Your task to perform on an android device: turn on notifications settings in the gmail app Image 0: 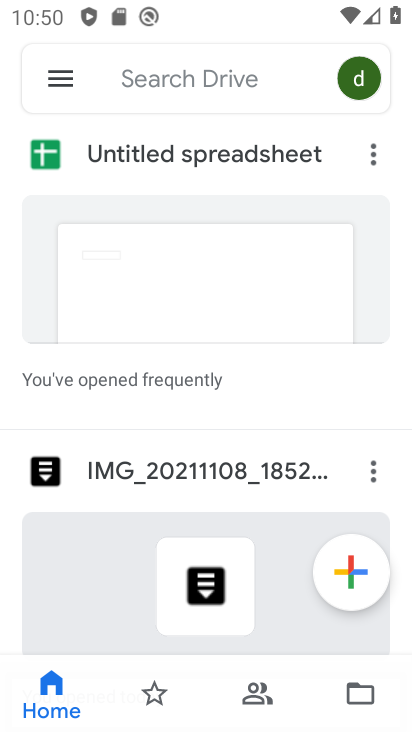
Step 0: press home button
Your task to perform on an android device: turn on notifications settings in the gmail app Image 1: 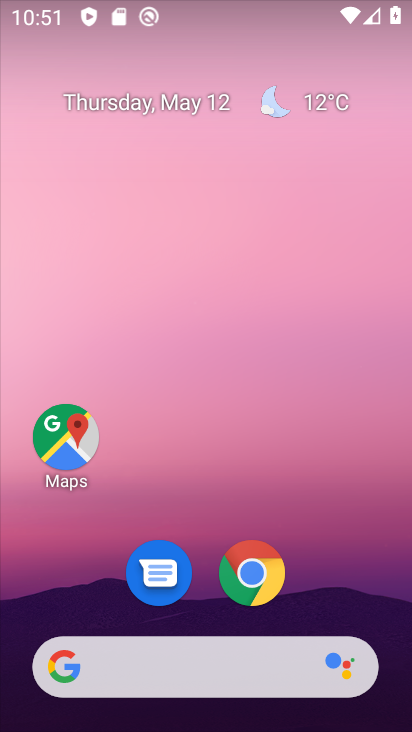
Step 1: drag from (344, 570) to (353, 129)
Your task to perform on an android device: turn on notifications settings in the gmail app Image 2: 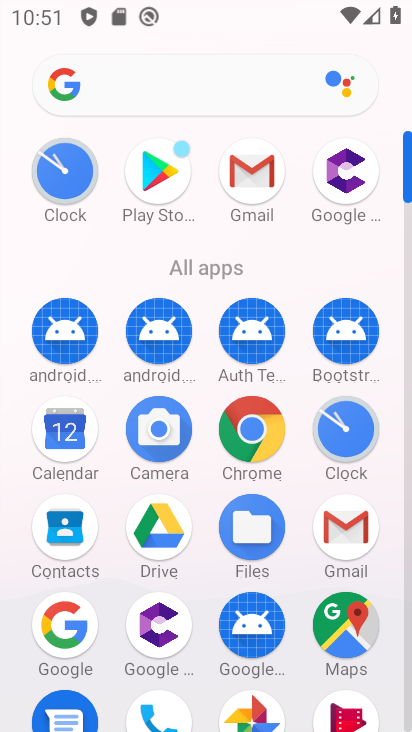
Step 2: click (263, 161)
Your task to perform on an android device: turn on notifications settings in the gmail app Image 3: 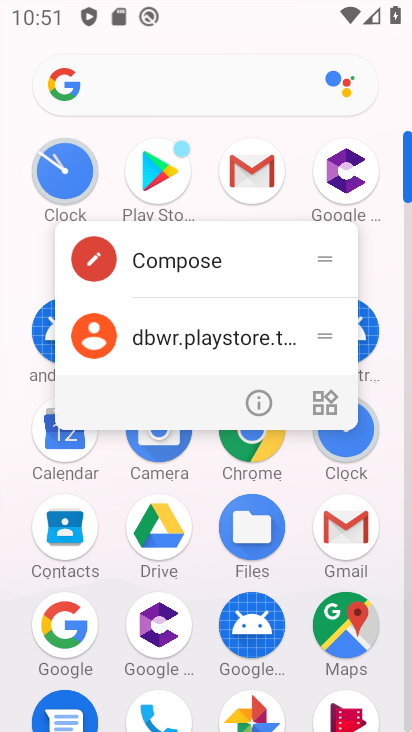
Step 3: click (258, 403)
Your task to perform on an android device: turn on notifications settings in the gmail app Image 4: 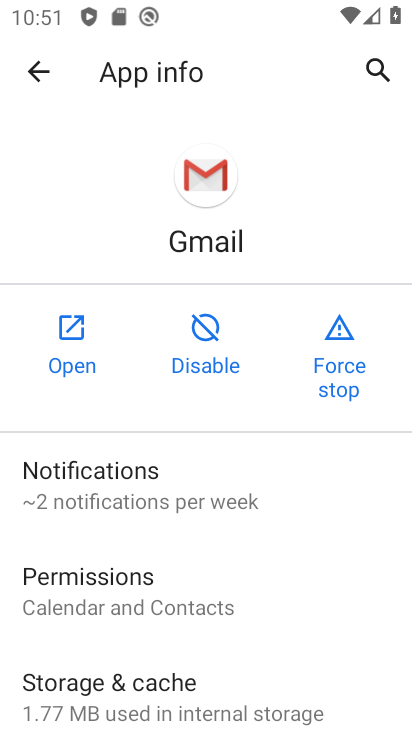
Step 4: drag from (218, 555) to (200, 280)
Your task to perform on an android device: turn on notifications settings in the gmail app Image 5: 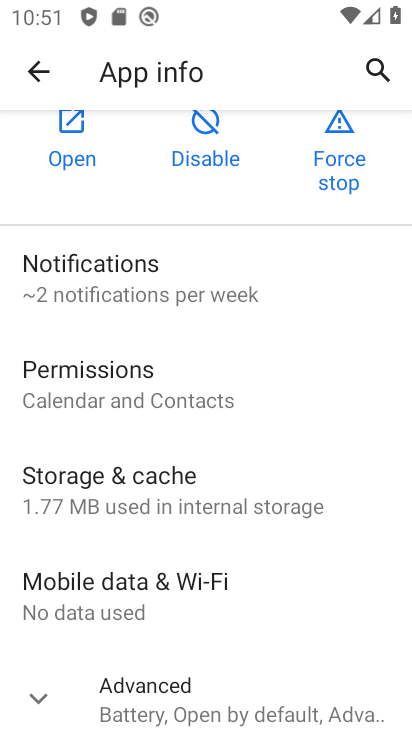
Step 5: drag from (316, 601) to (202, 248)
Your task to perform on an android device: turn on notifications settings in the gmail app Image 6: 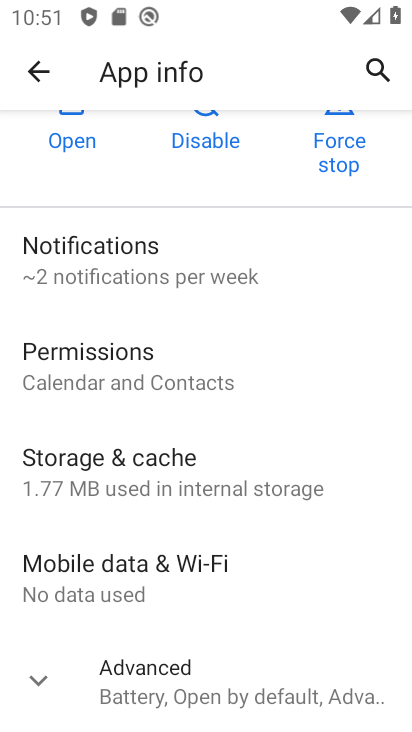
Step 6: click (85, 261)
Your task to perform on an android device: turn on notifications settings in the gmail app Image 7: 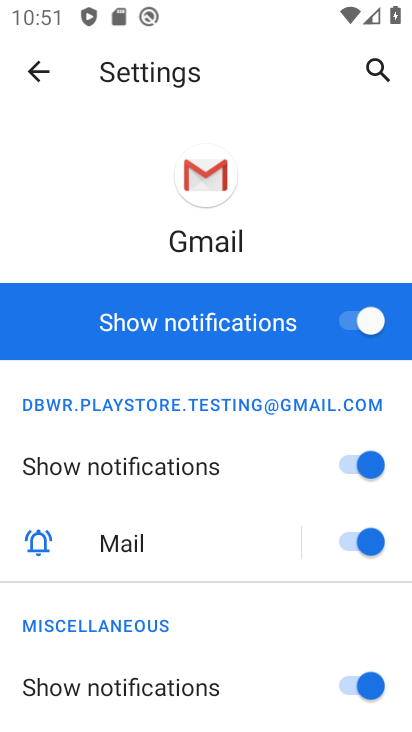
Step 7: click (343, 341)
Your task to perform on an android device: turn on notifications settings in the gmail app Image 8: 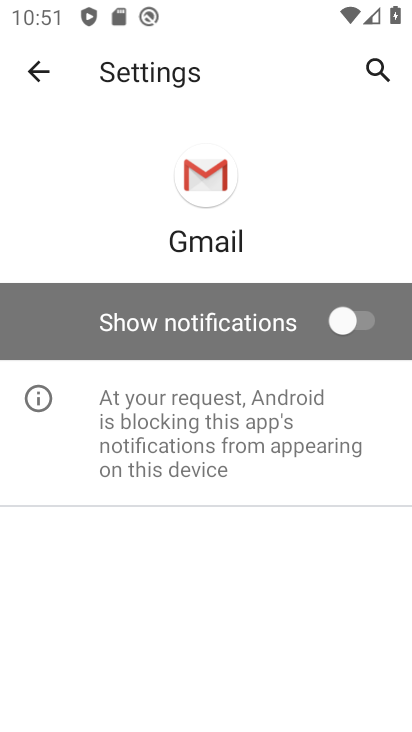
Step 8: task complete